Your task to perform on an android device: Open Android settings Image 0: 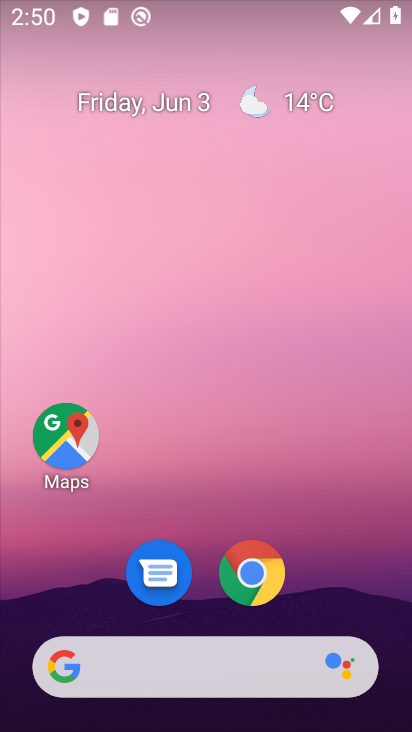
Step 0: drag from (286, 641) to (345, 31)
Your task to perform on an android device: Open Android settings Image 1: 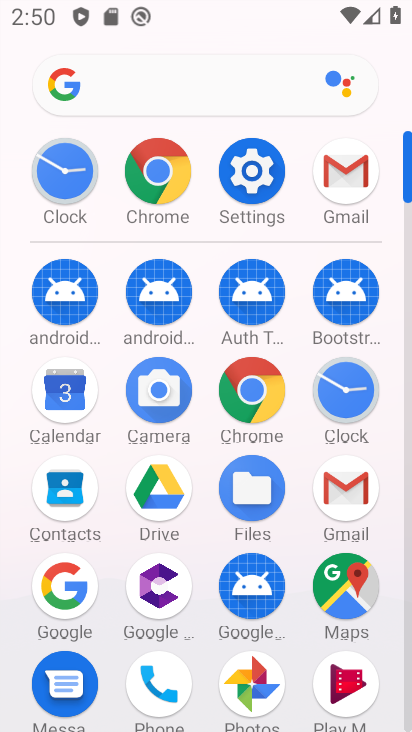
Step 1: click (251, 156)
Your task to perform on an android device: Open Android settings Image 2: 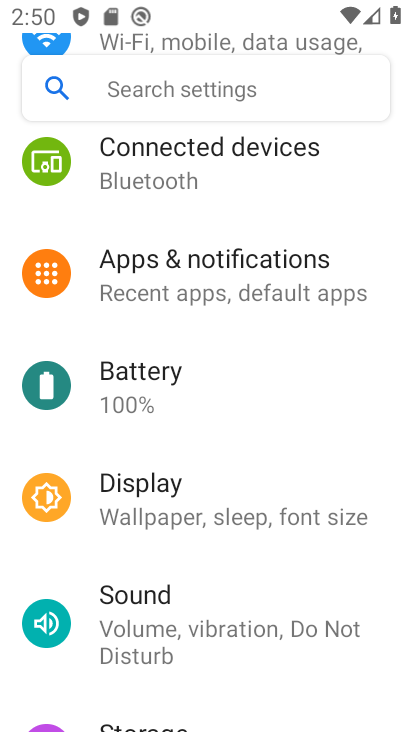
Step 2: drag from (245, 609) to (272, 31)
Your task to perform on an android device: Open Android settings Image 3: 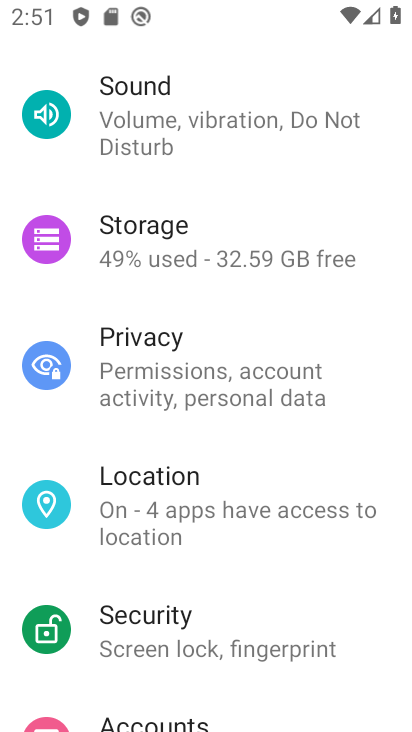
Step 3: drag from (265, 590) to (269, 233)
Your task to perform on an android device: Open Android settings Image 4: 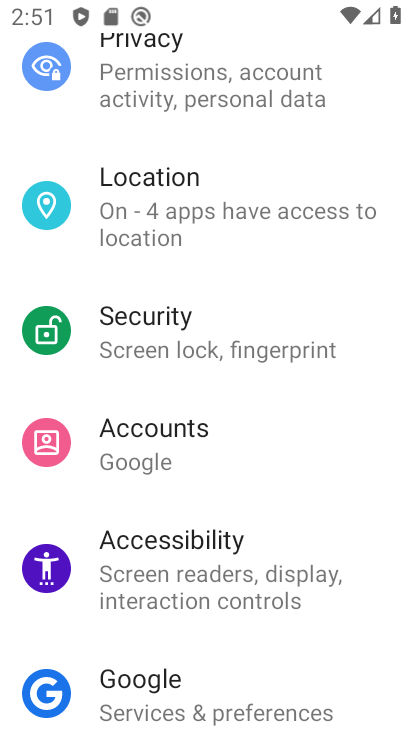
Step 4: drag from (303, 637) to (282, 279)
Your task to perform on an android device: Open Android settings Image 5: 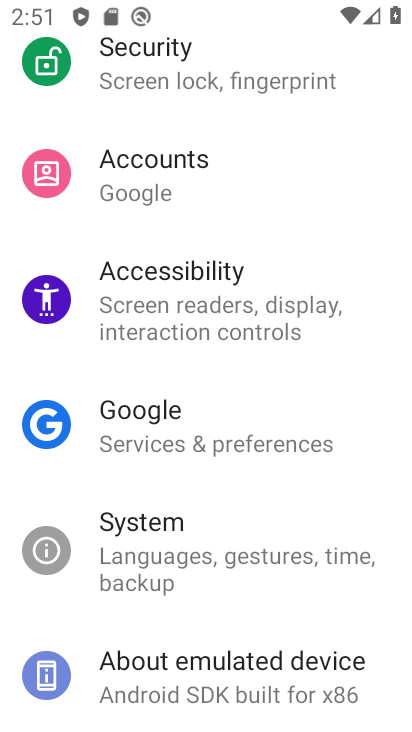
Step 5: click (283, 684)
Your task to perform on an android device: Open Android settings Image 6: 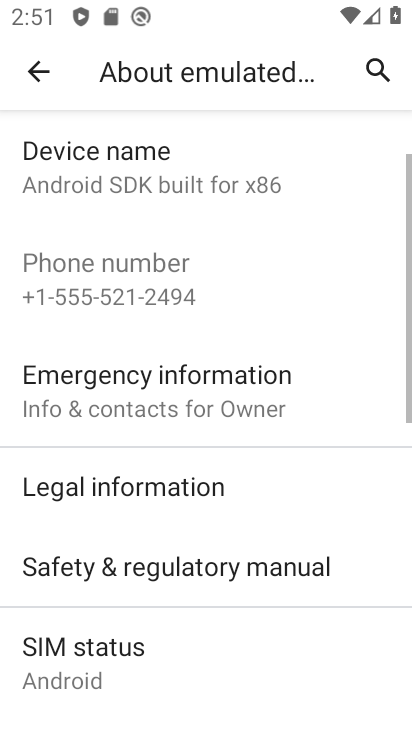
Step 6: drag from (243, 679) to (274, 196)
Your task to perform on an android device: Open Android settings Image 7: 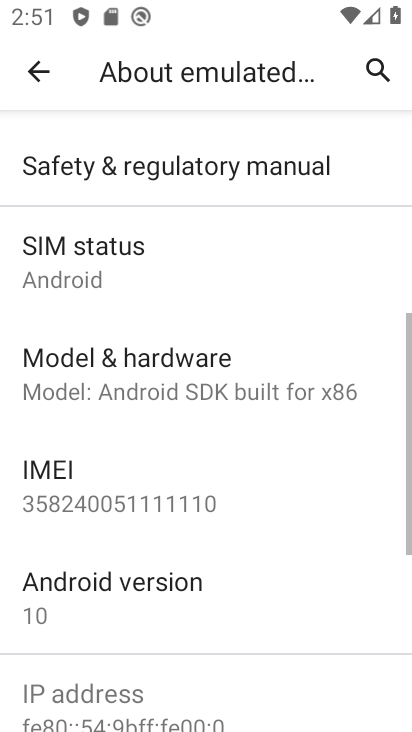
Step 7: click (199, 612)
Your task to perform on an android device: Open Android settings Image 8: 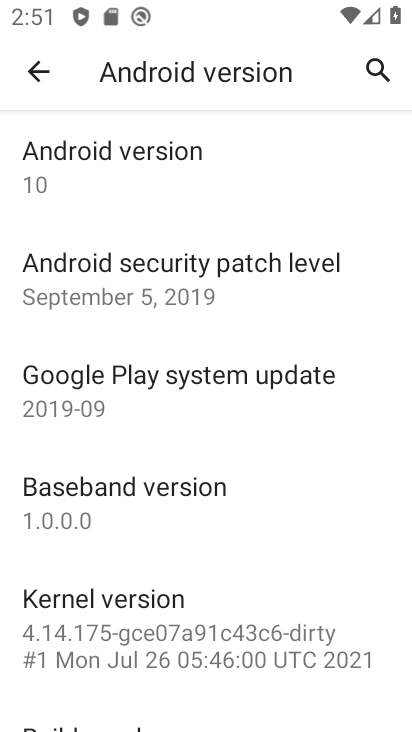
Step 8: task complete